Your task to perform on an android device: turn off wifi Image 0: 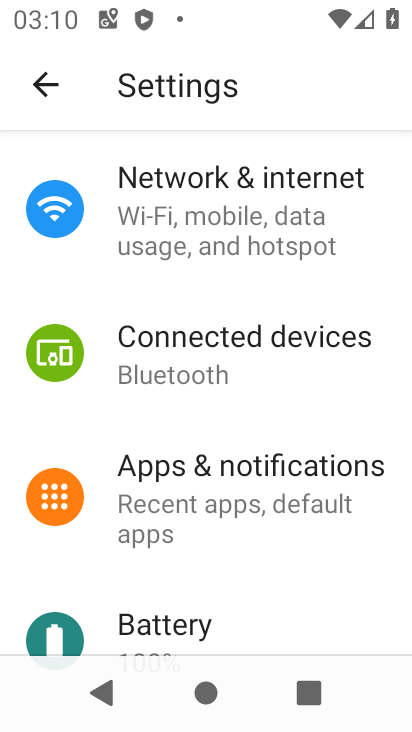
Step 0: click (174, 184)
Your task to perform on an android device: turn off wifi Image 1: 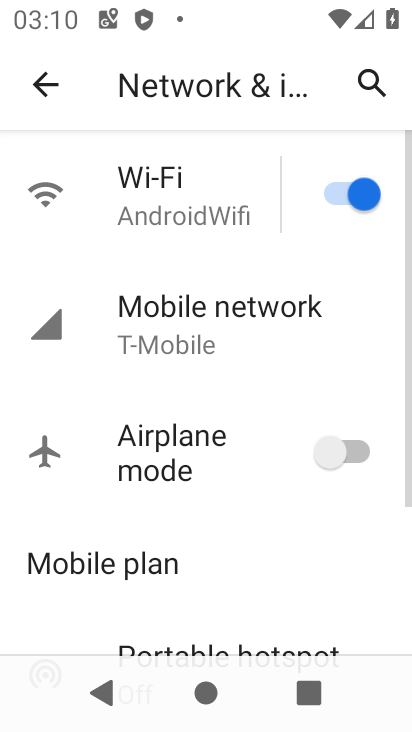
Step 1: click (336, 184)
Your task to perform on an android device: turn off wifi Image 2: 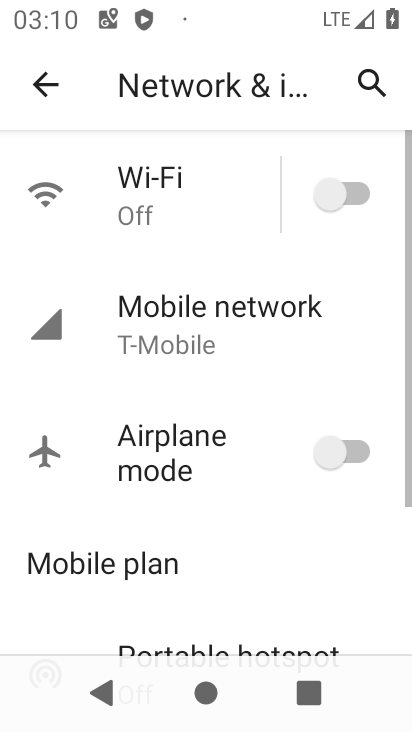
Step 2: task complete